Your task to perform on an android device: turn notification dots off Image 0: 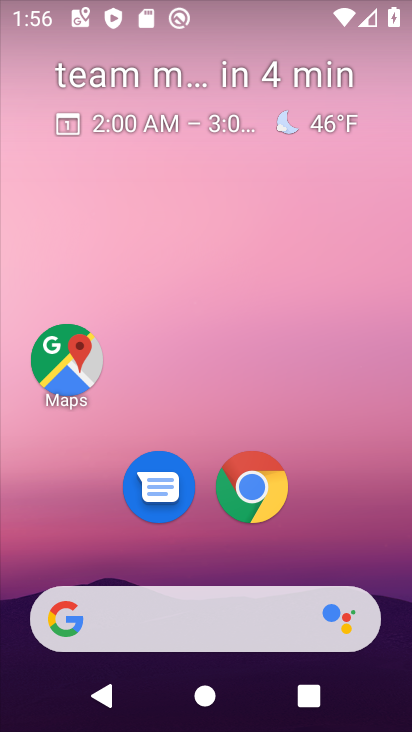
Step 0: drag from (349, 535) to (307, 67)
Your task to perform on an android device: turn notification dots off Image 1: 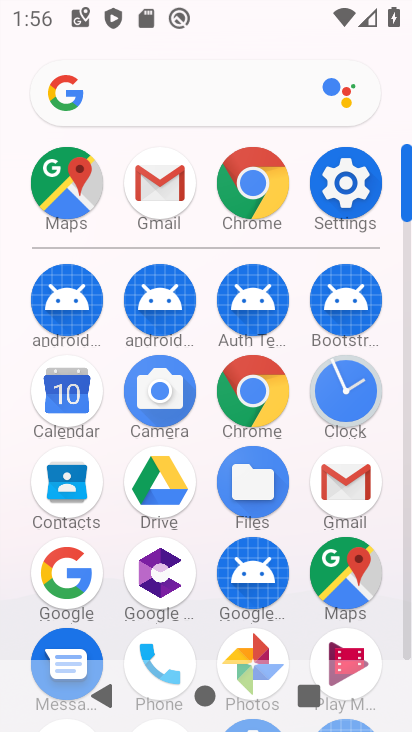
Step 1: click (337, 179)
Your task to perform on an android device: turn notification dots off Image 2: 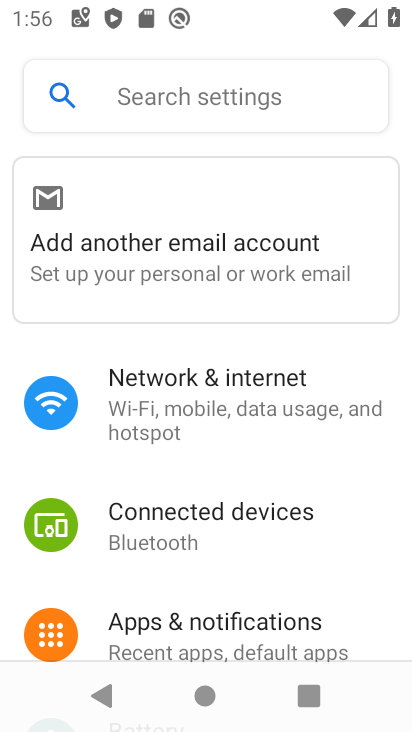
Step 2: drag from (286, 590) to (276, 236)
Your task to perform on an android device: turn notification dots off Image 3: 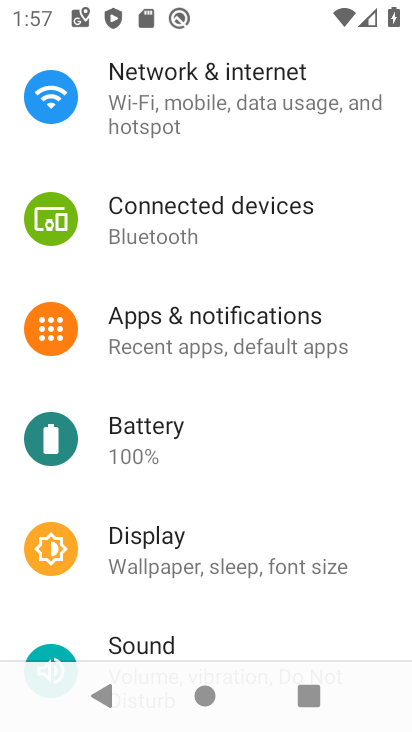
Step 3: click (205, 324)
Your task to perform on an android device: turn notification dots off Image 4: 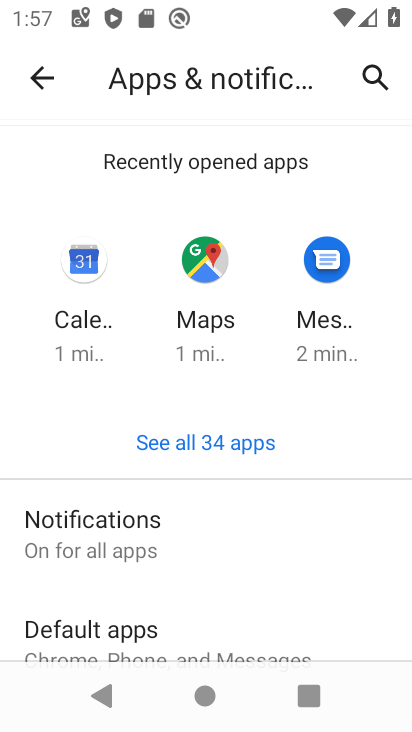
Step 4: click (98, 543)
Your task to perform on an android device: turn notification dots off Image 5: 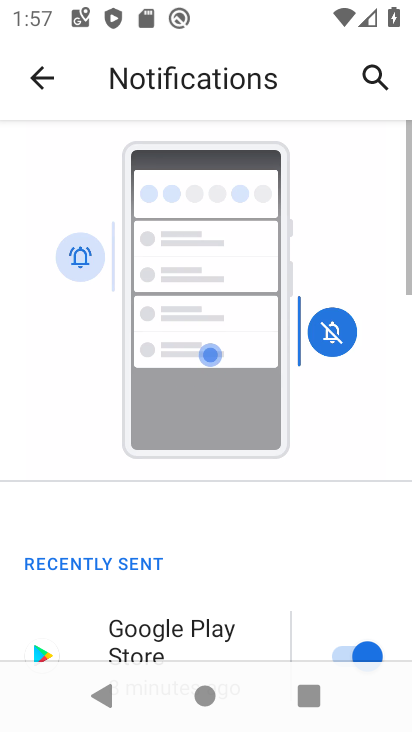
Step 5: drag from (315, 587) to (318, 84)
Your task to perform on an android device: turn notification dots off Image 6: 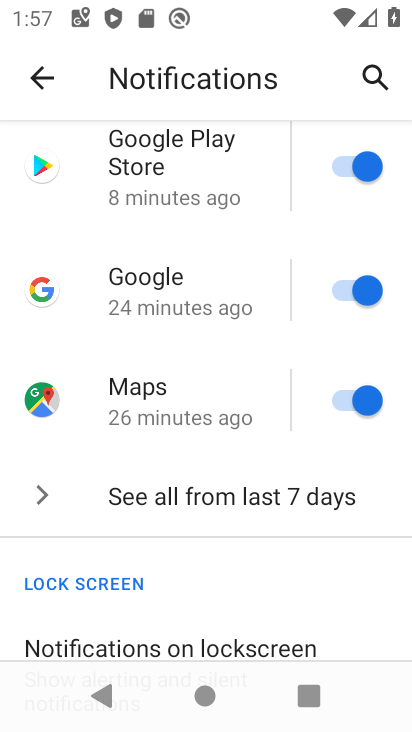
Step 6: drag from (266, 622) to (289, 136)
Your task to perform on an android device: turn notification dots off Image 7: 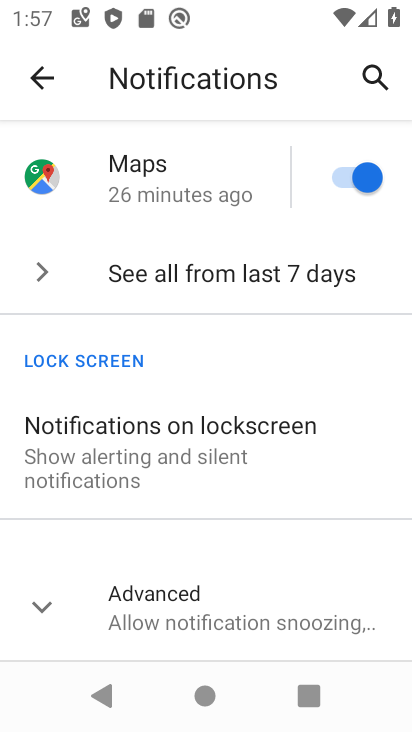
Step 7: click (205, 595)
Your task to perform on an android device: turn notification dots off Image 8: 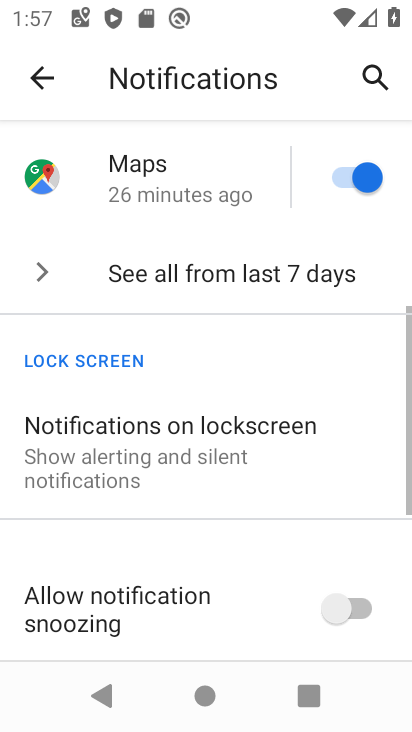
Step 8: task complete